Your task to perform on an android device: toggle airplane mode Image 0: 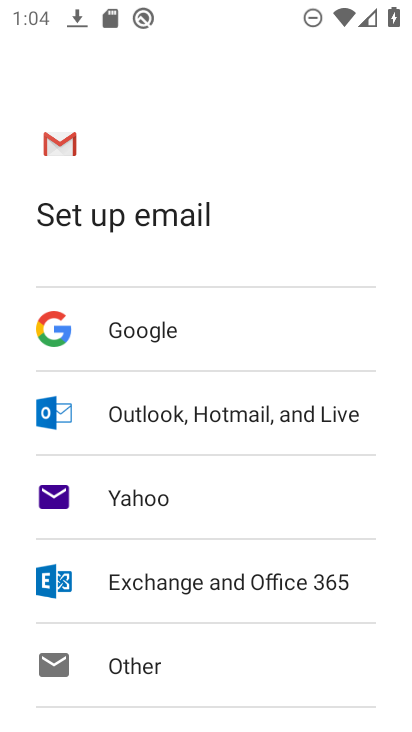
Step 0: press home button
Your task to perform on an android device: toggle airplane mode Image 1: 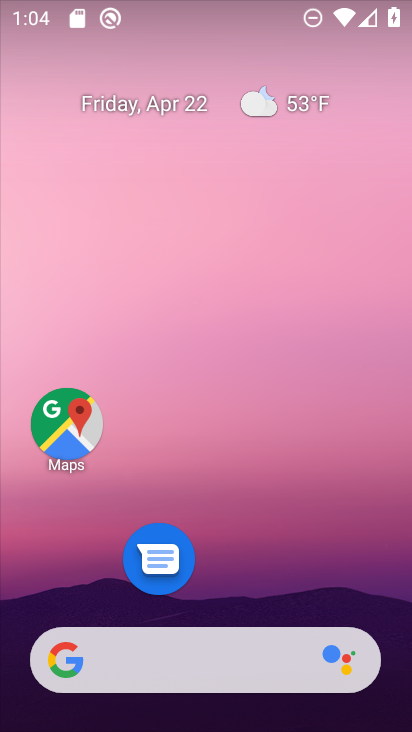
Step 1: drag from (240, 725) to (224, 162)
Your task to perform on an android device: toggle airplane mode Image 2: 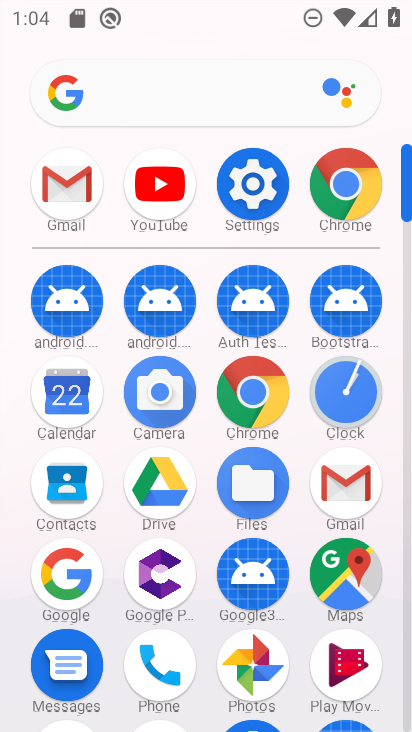
Step 2: click (259, 181)
Your task to perform on an android device: toggle airplane mode Image 3: 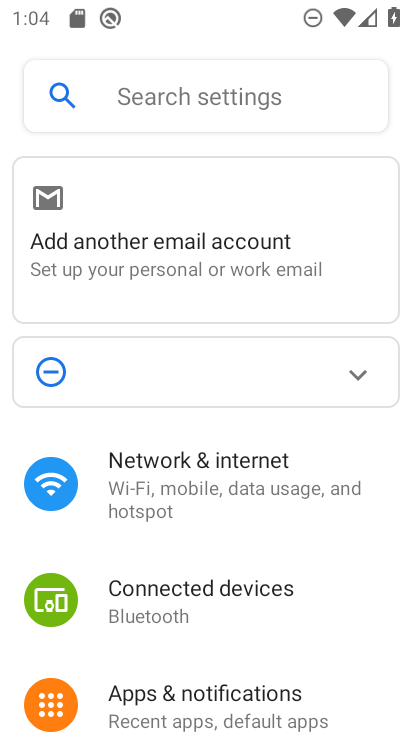
Step 3: click (173, 485)
Your task to perform on an android device: toggle airplane mode Image 4: 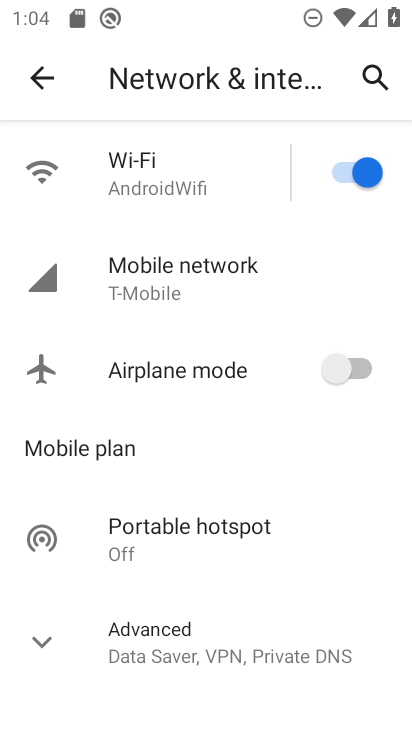
Step 4: click (350, 368)
Your task to perform on an android device: toggle airplane mode Image 5: 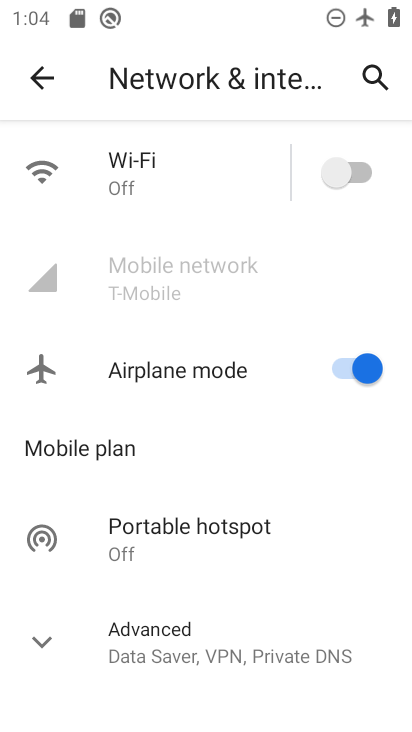
Step 5: task complete